Your task to perform on an android device: Is it going to rain today? Image 0: 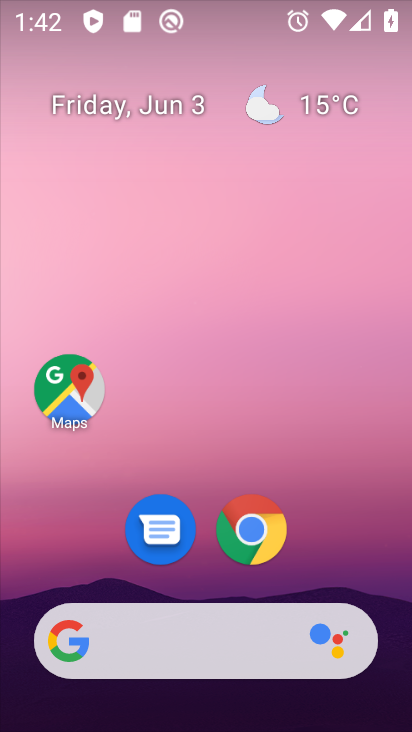
Step 0: click (300, 99)
Your task to perform on an android device: Is it going to rain today? Image 1: 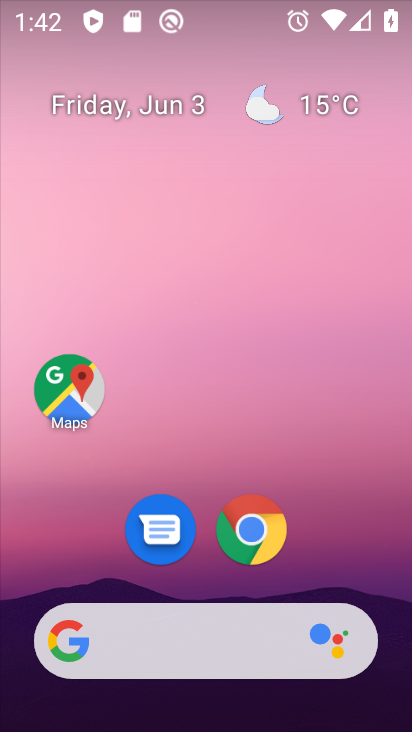
Step 1: click (311, 104)
Your task to perform on an android device: Is it going to rain today? Image 2: 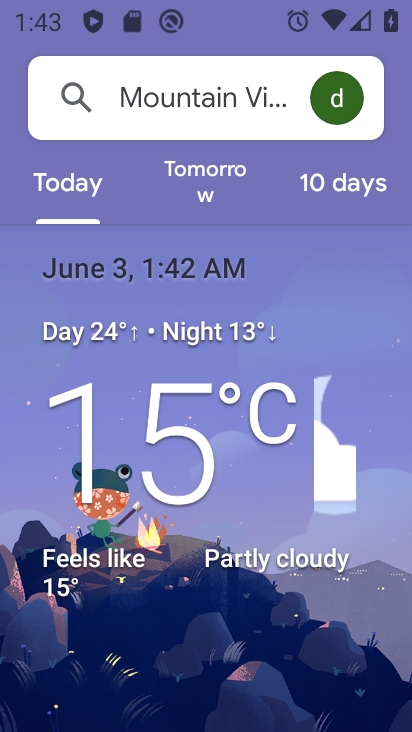
Step 2: task complete